Your task to perform on an android device: Open Chrome and go to settings Image 0: 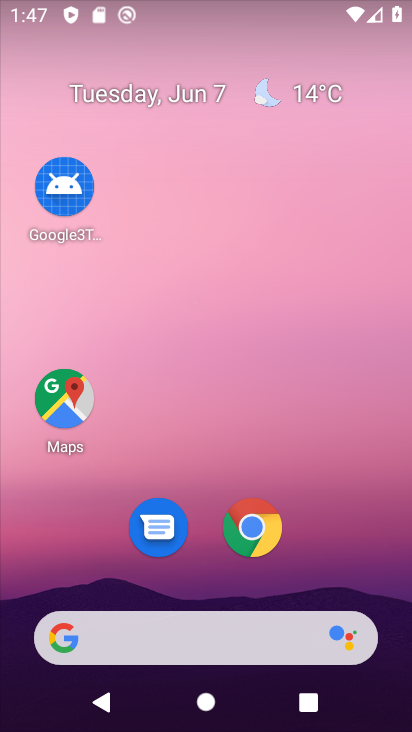
Step 0: click (267, 536)
Your task to perform on an android device: Open Chrome and go to settings Image 1: 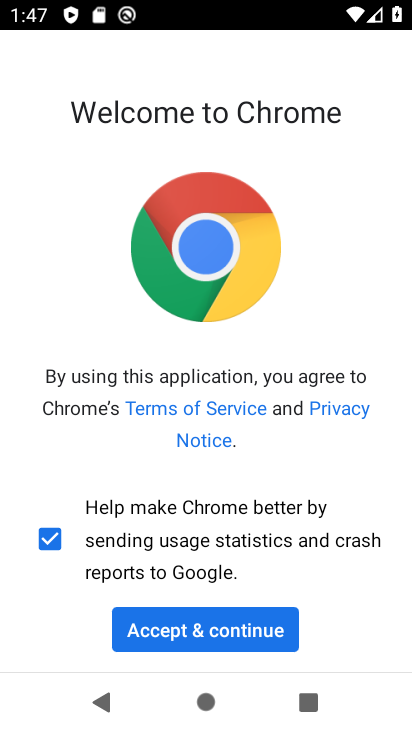
Step 1: click (265, 638)
Your task to perform on an android device: Open Chrome and go to settings Image 2: 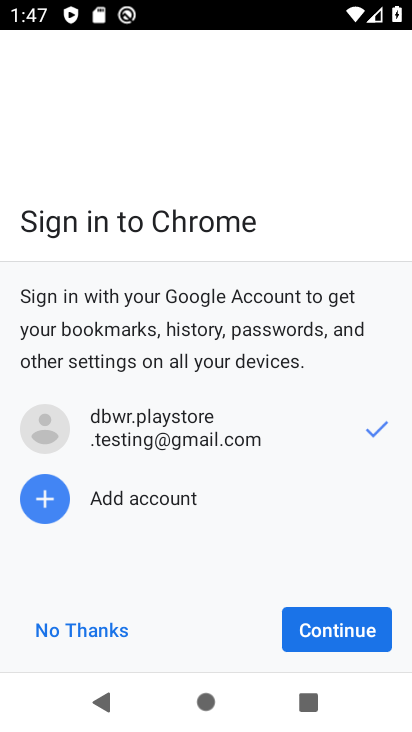
Step 2: click (306, 624)
Your task to perform on an android device: Open Chrome and go to settings Image 3: 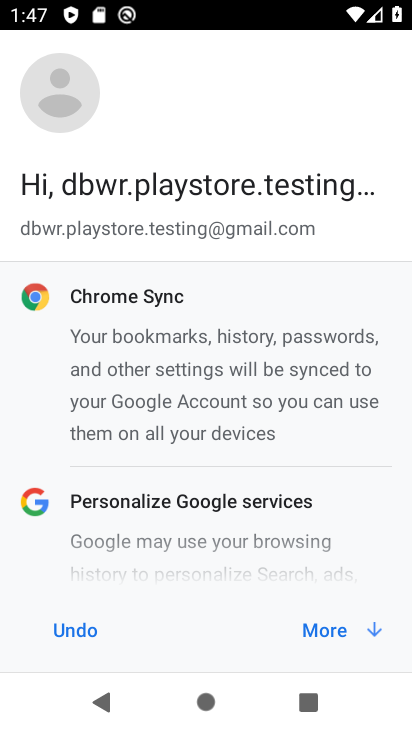
Step 3: click (306, 624)
Your task to perform on an android device: Open Chrome and go to settings Image 4: 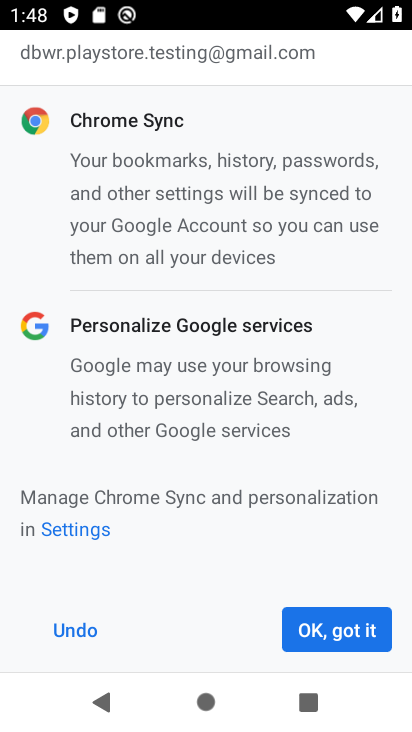
Step 4: click (306, 624)
Your task to perform on an android device: Open Chrome and go to settings Image 5: 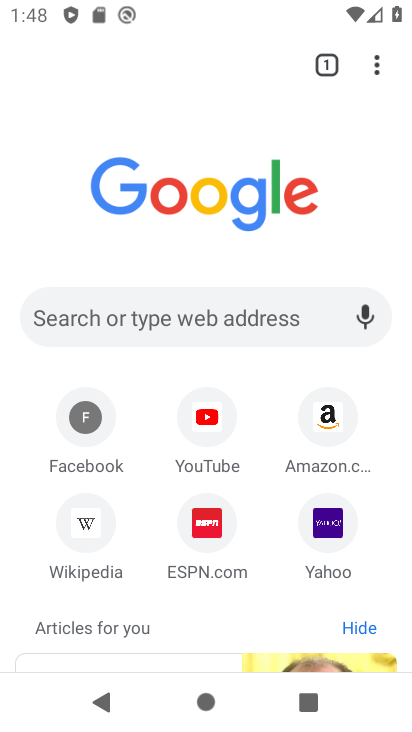
Step 5: click (380, 69)
Your task to perform on an android device: Open Chrome and go to settings Image 6: 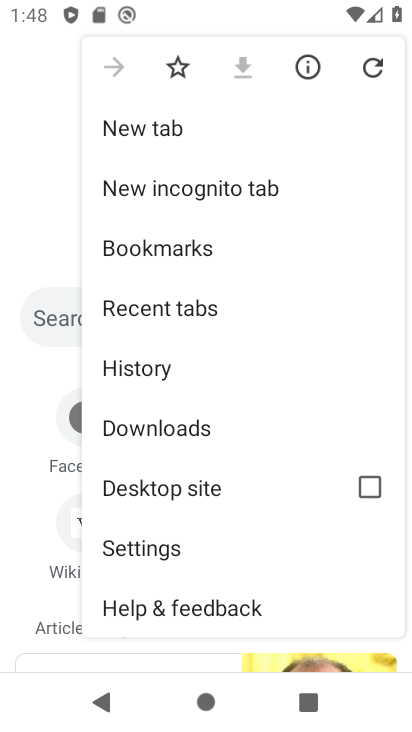
Step 6: click (168, 538)
Your task to perform on an android device: Open Chrome and go to settings Image 7: 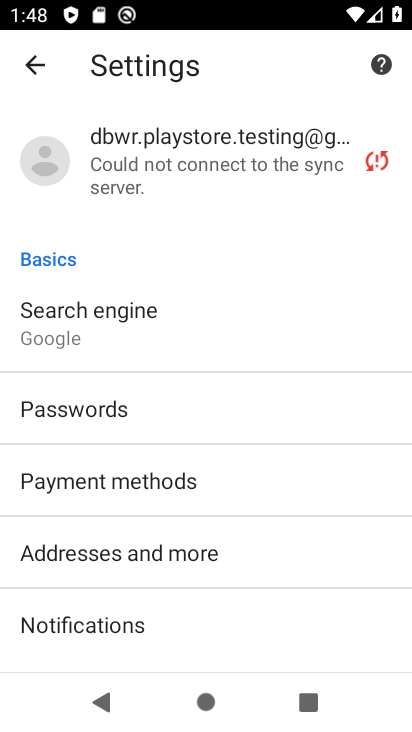
Step 7: task complete